Your task to perform on an android device: Search for pizza restaurants on Maps Image 0: 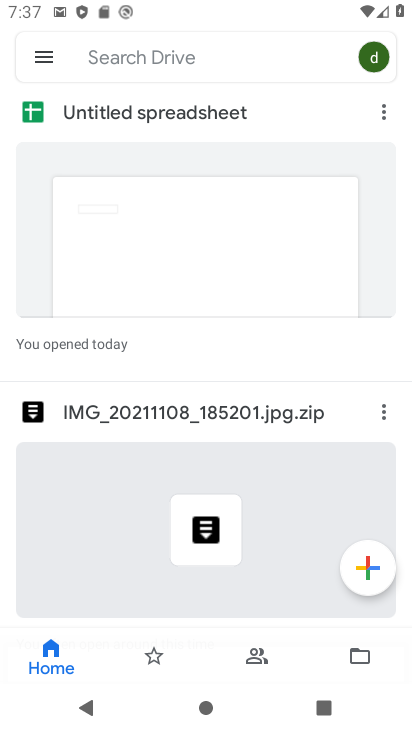
Step 0: task complete